Your task to perform on an android device: turn on showing notifications on the lock screen Image 0: 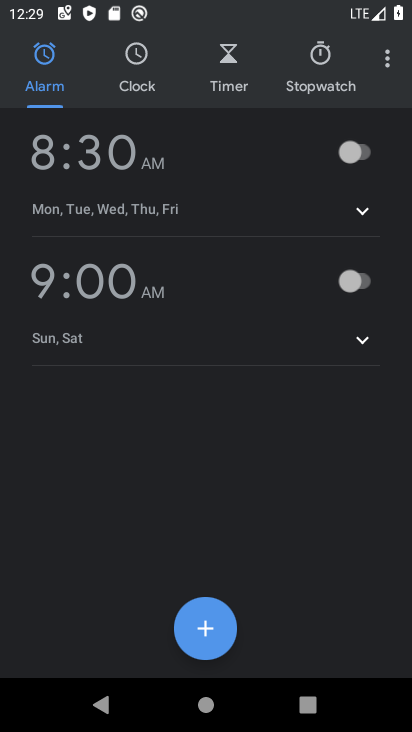
Step 0: press home button
Your task to perform on an android device: turn on showing notifications on the lock screen Image 1: 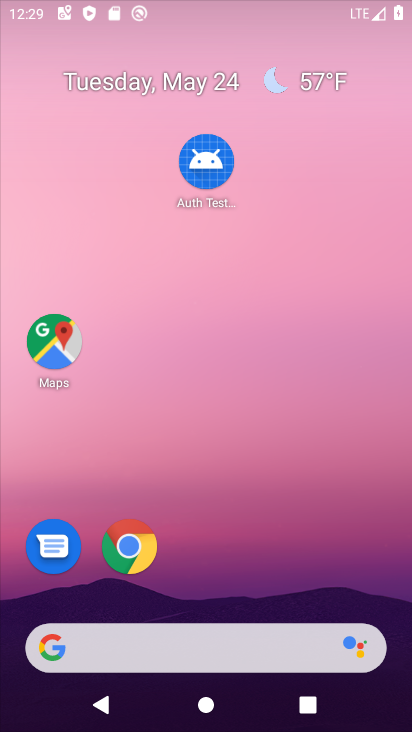
Step 1: drag from (215, 605) to (289, 184)
Your task to perform on an android device: turn on showing notifications on the lock screen Image 2: 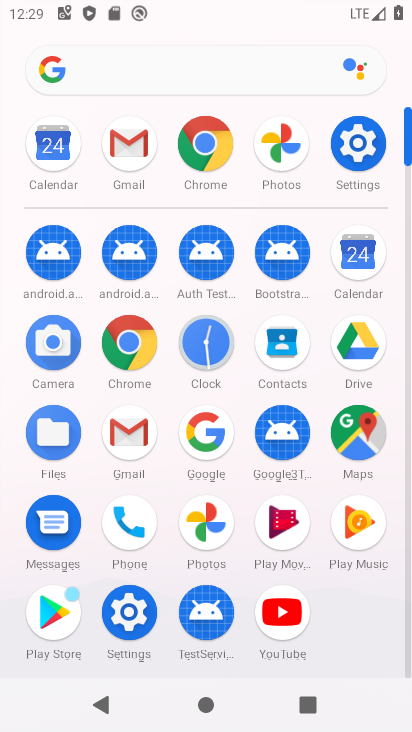
Step 2: click (353, 132)
Your task to perform on an android device: turn on showing notifications on the lock screen Image 3: 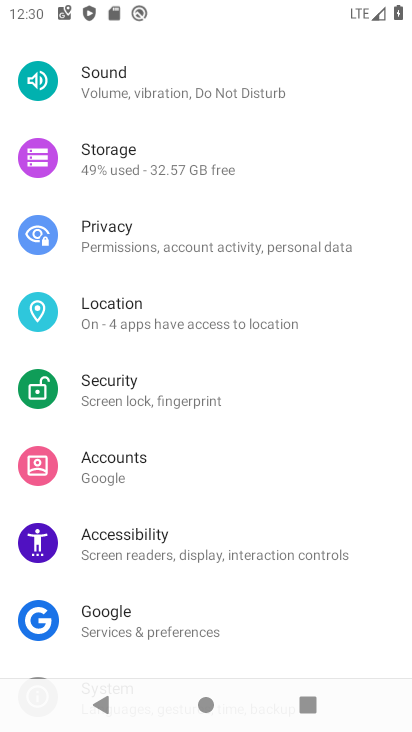
Step 3: drag from (193, 156) to (287, 692)
Your task to perform on an android device: turn on showing notifications on the lock screen Image 4: 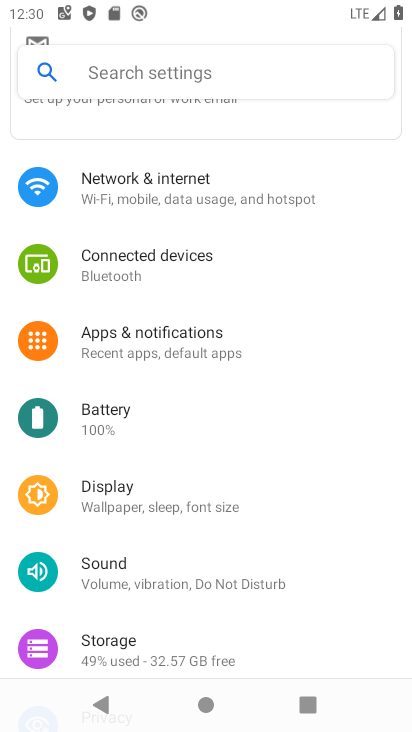
Step 4: click (158, 338)
Your task to perform on an android device: turn on showing notifications on the lock screen Image 5: 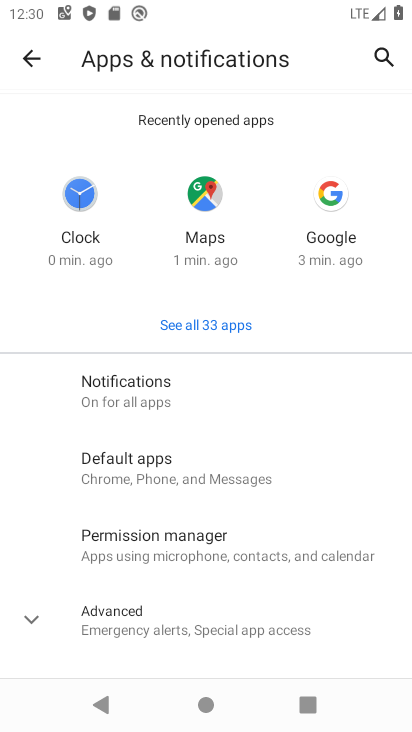
Step 5: click (179, 380)
Your task to perform on an android device: turn on showing notifications on the lock screen Image 6: 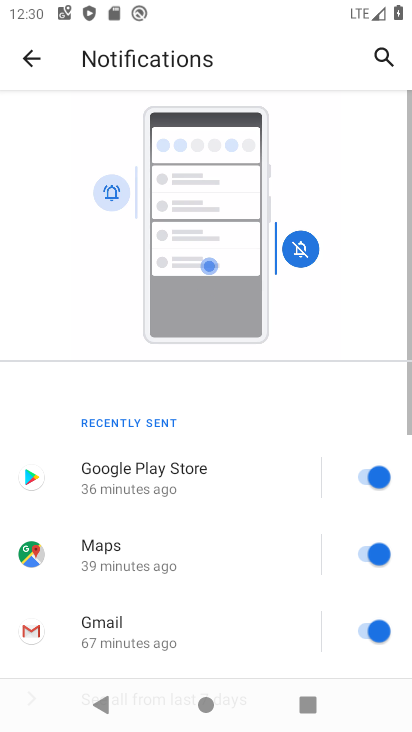
Step 6: drag from (275, 645) to (335, 201)
Your task to perform on an android device: turn on showing notifications on the lock screen Image 7: 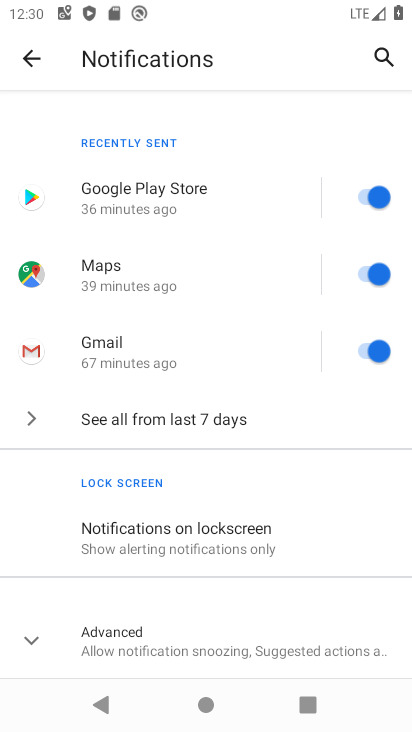
Step 7: click (243, 535)
Your task to perform on an android device: turn on showing notifications on the lock screen Image 8: 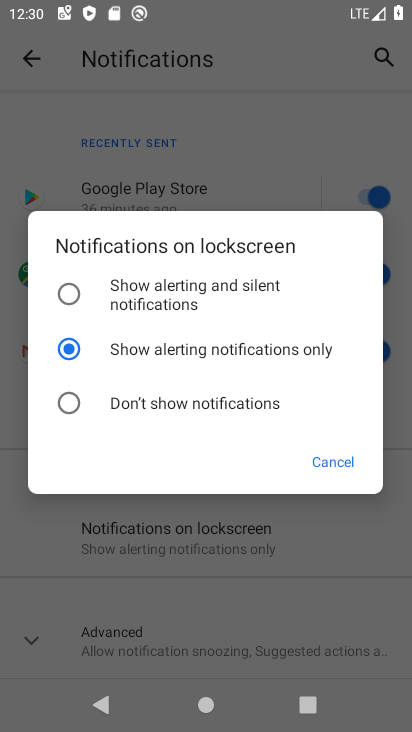
Step 8: task complete